Your task to perform on an android device: Search for "razer blade" on bestbuy, select the first entry, add it to the cart, then select checkout. Image 0: 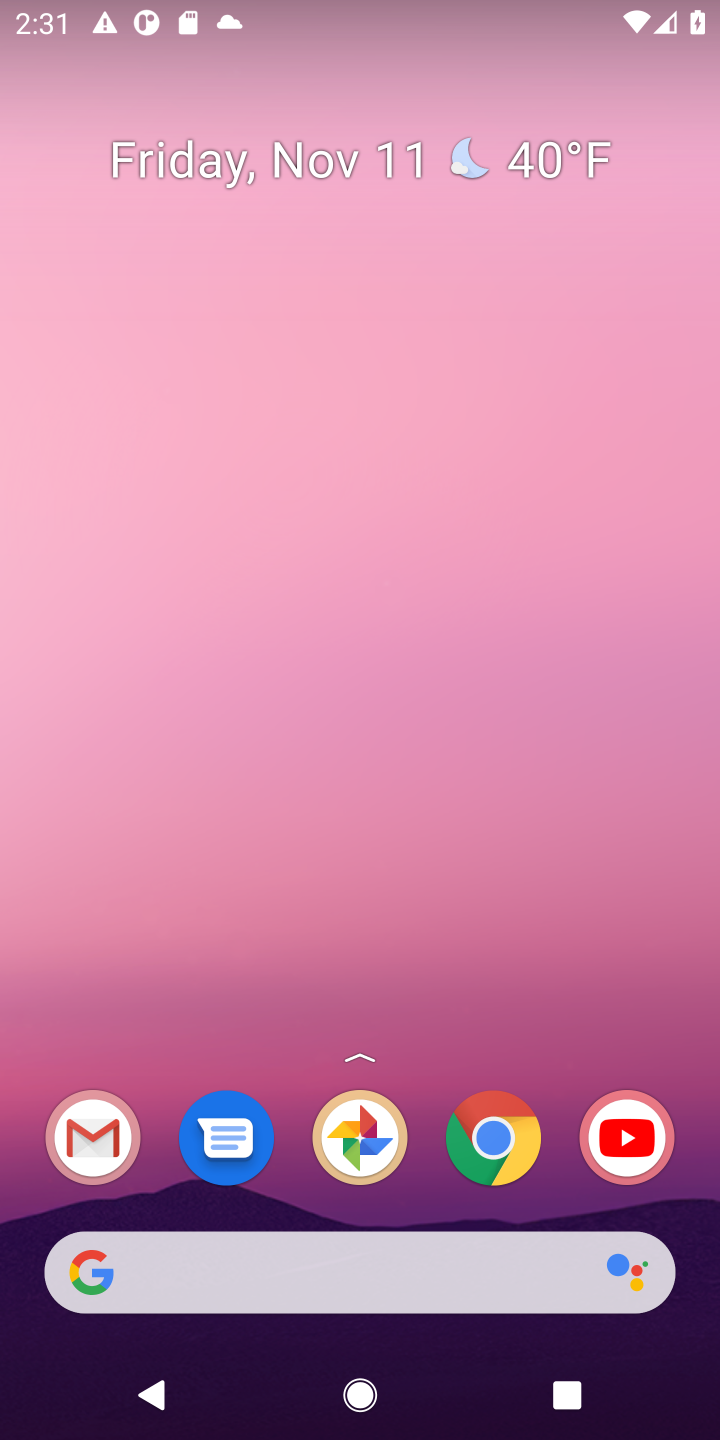
Step 0: click (471, 1137)
Your task to perform on an android device: Search for "razer blade" on bestbuy, select the first entry, add it to the cart, then select checkout. Image 1: 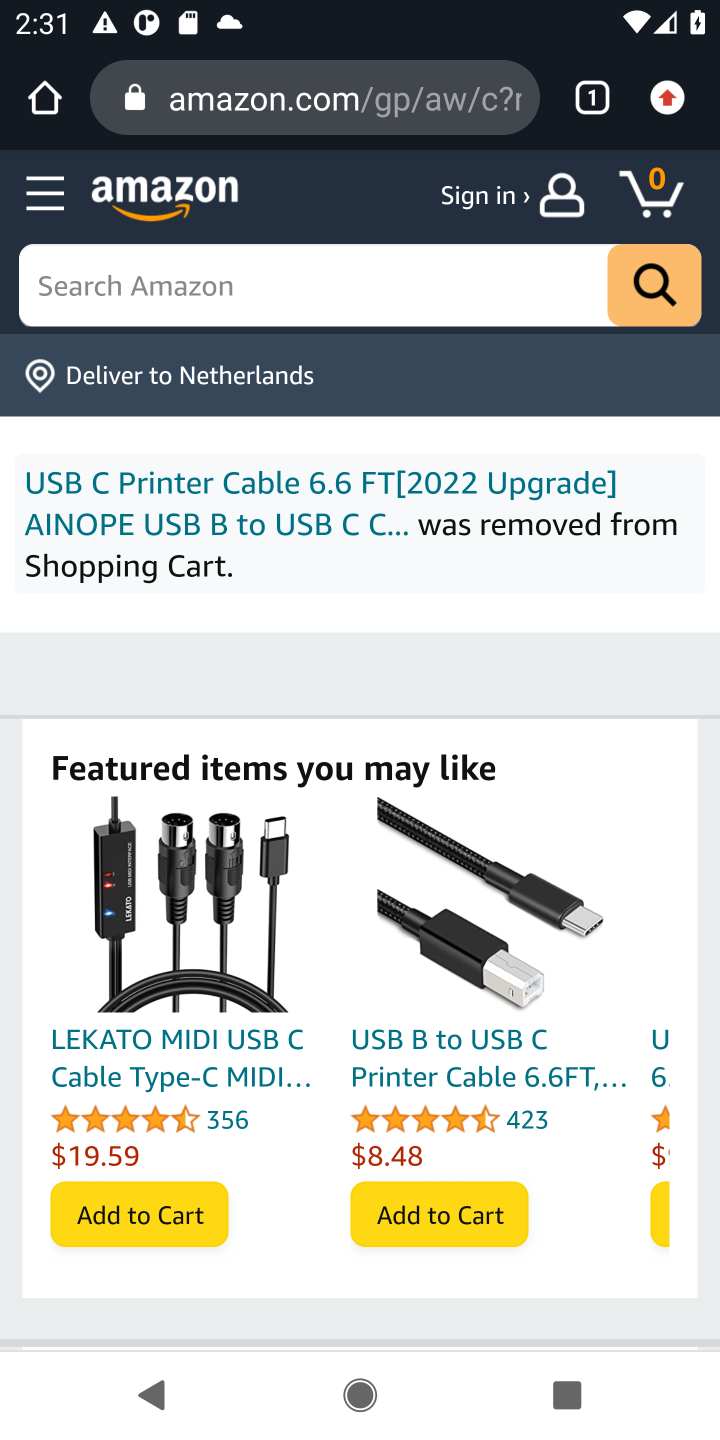
Step 1: click (390, 101)
Your task to perform on an android device: Search for "razer blade" on bestbuy, select the first entry, add it to the cart, then select checkout. Image 2: 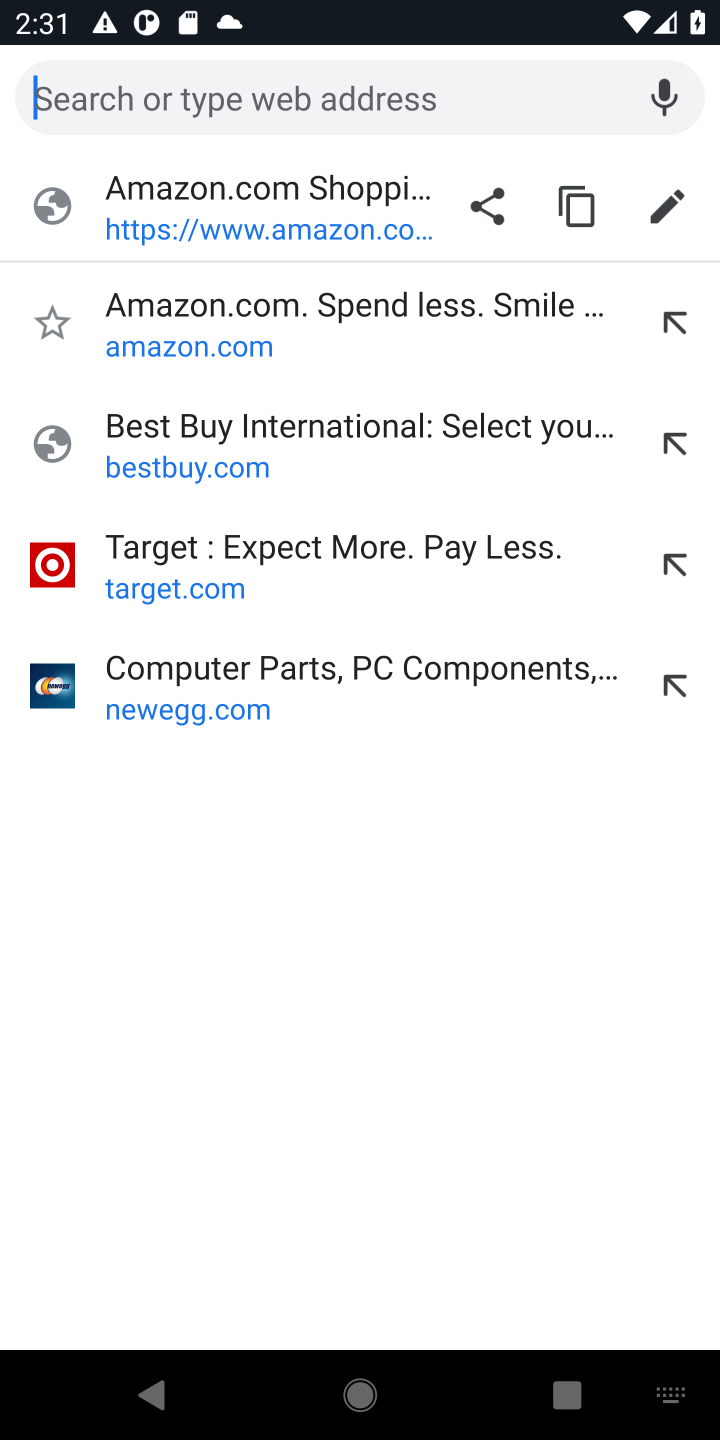
Step 2: click (394, 425)
Your task to perform on an android device: Search for "razer blade" on bestbuy, select the first entry, add it to the cart, then select checkout. Image 3: 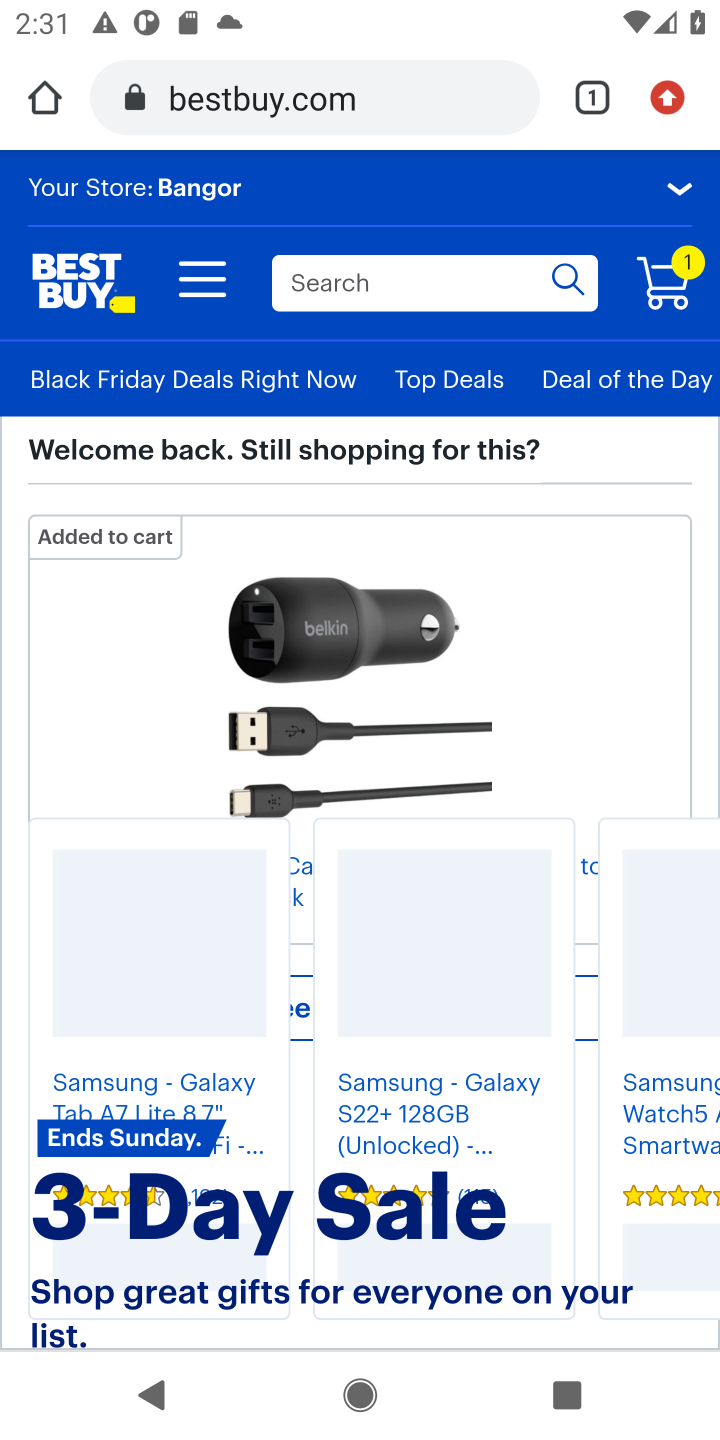
Step 3: click (374, 280)
Your task to perform on an android device: Search for "razer blade" on bestbuy, select the first entry, add it to the cart, then select checkout. Image 4: 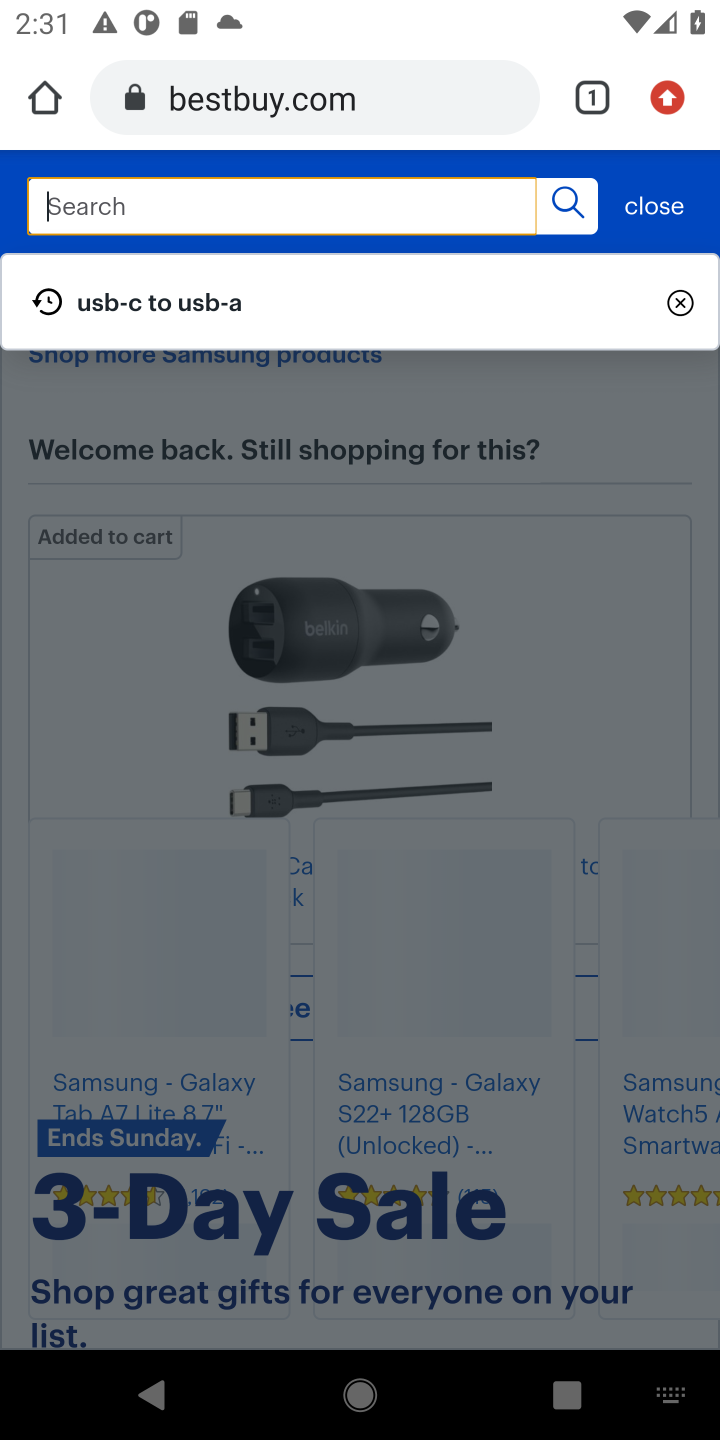
Step 4: type "razer blade"
Your task to perform on an android device: Search for "razer blade" on bestbuy, select the first entry, add it to the cart, then select checkout. Image 5: 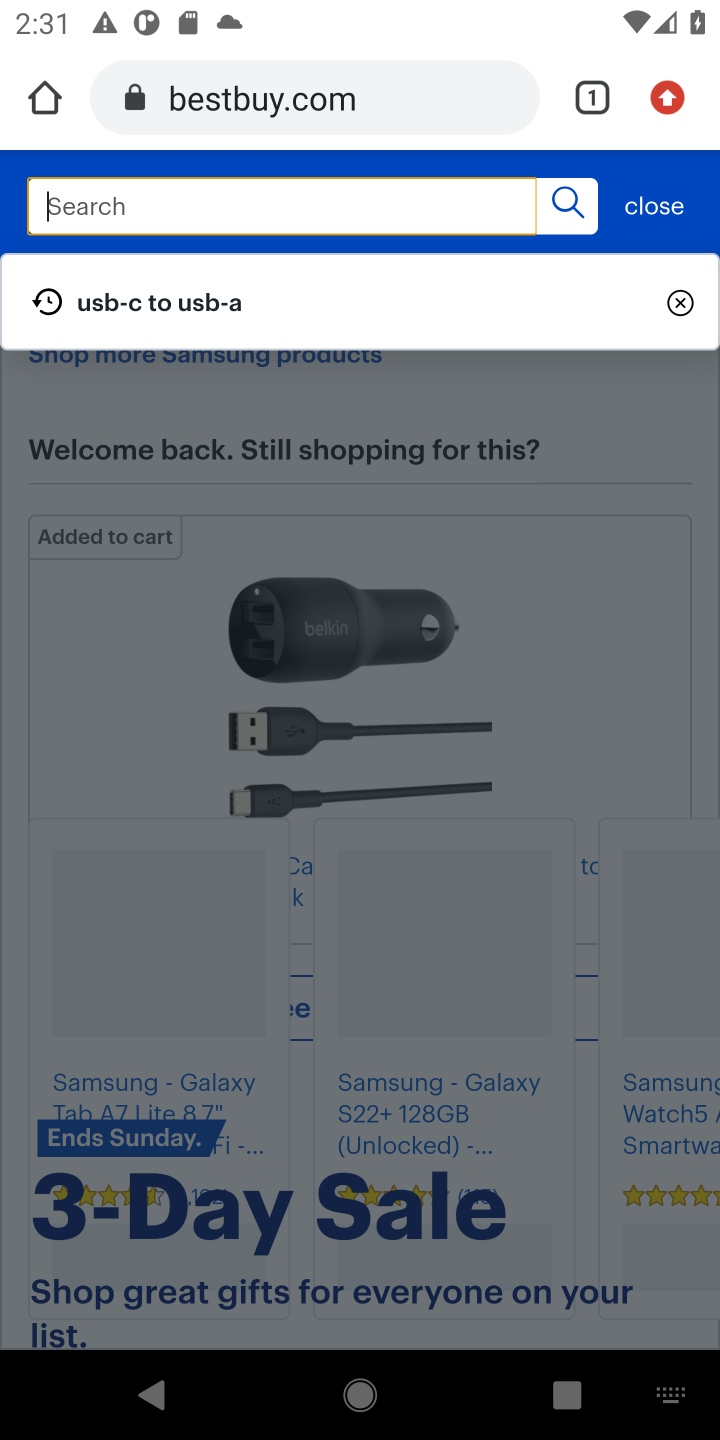
Step 5: press enter
Your task to perform on an android device: Search for "razer blade" on bestbuy, select the first entry, add it to the cart, then select checkout. Image 6: 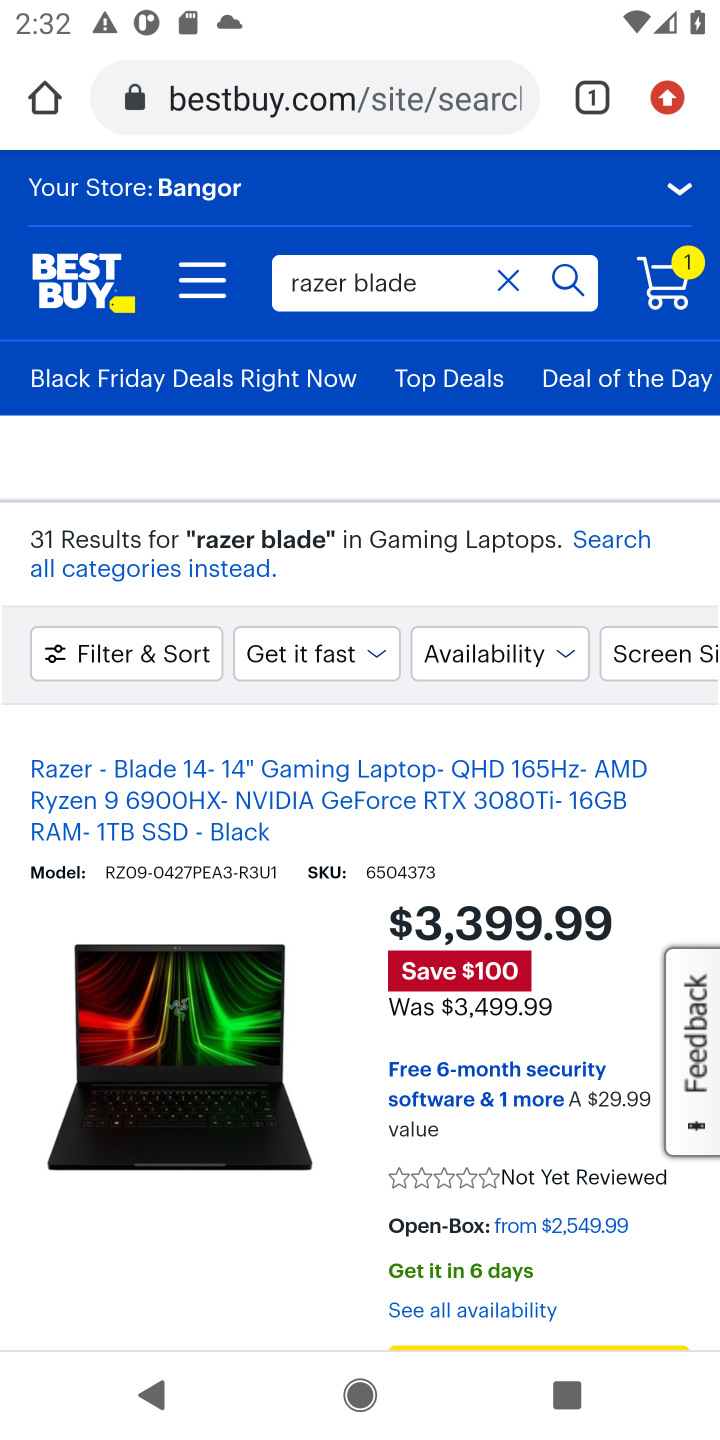
Step 6: click (234, 1100)
Your task to perform on an android device: Search for "razer blade" on bestbuy, select the first entry, add it to the cart, then select checkout. Image 7: 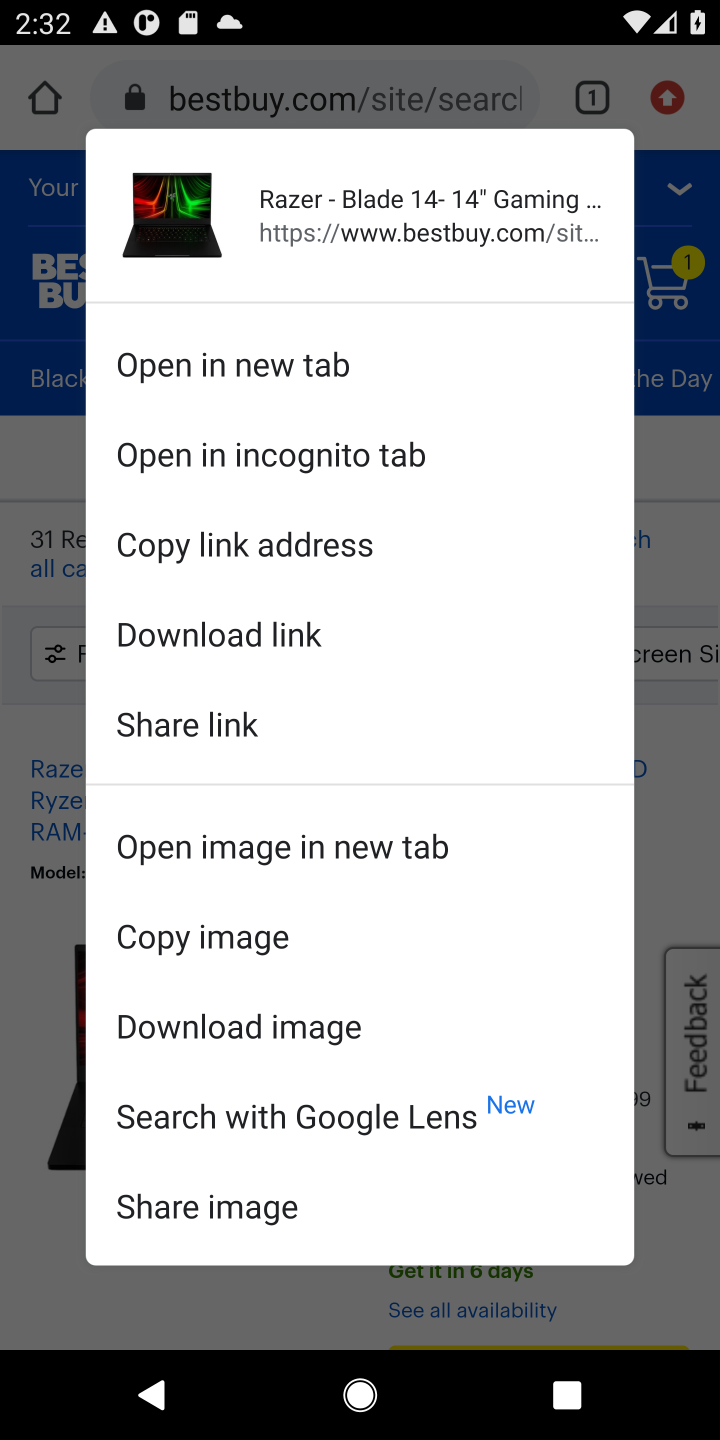
Step 7: click (82, 1088)
Your task to perform on an android device: Search for "razer blade" on bestbuy, select the first entry, add it to the cart, then select checkout. Image 8: 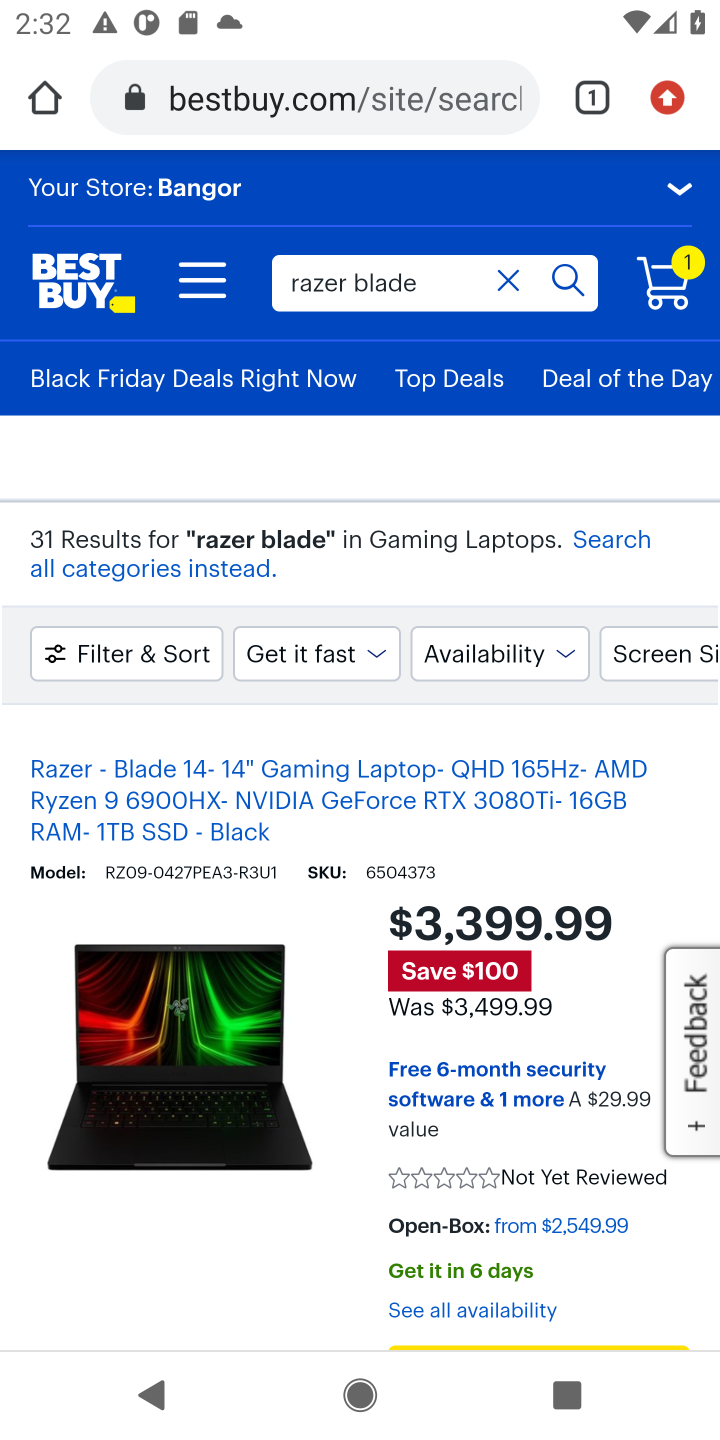
Step 8: click (140, 1026)
Your task to perform on an android device: Search for "razer blade" on bestbuy, select the first entry, add it to the cart, then select checkout. Image 9: 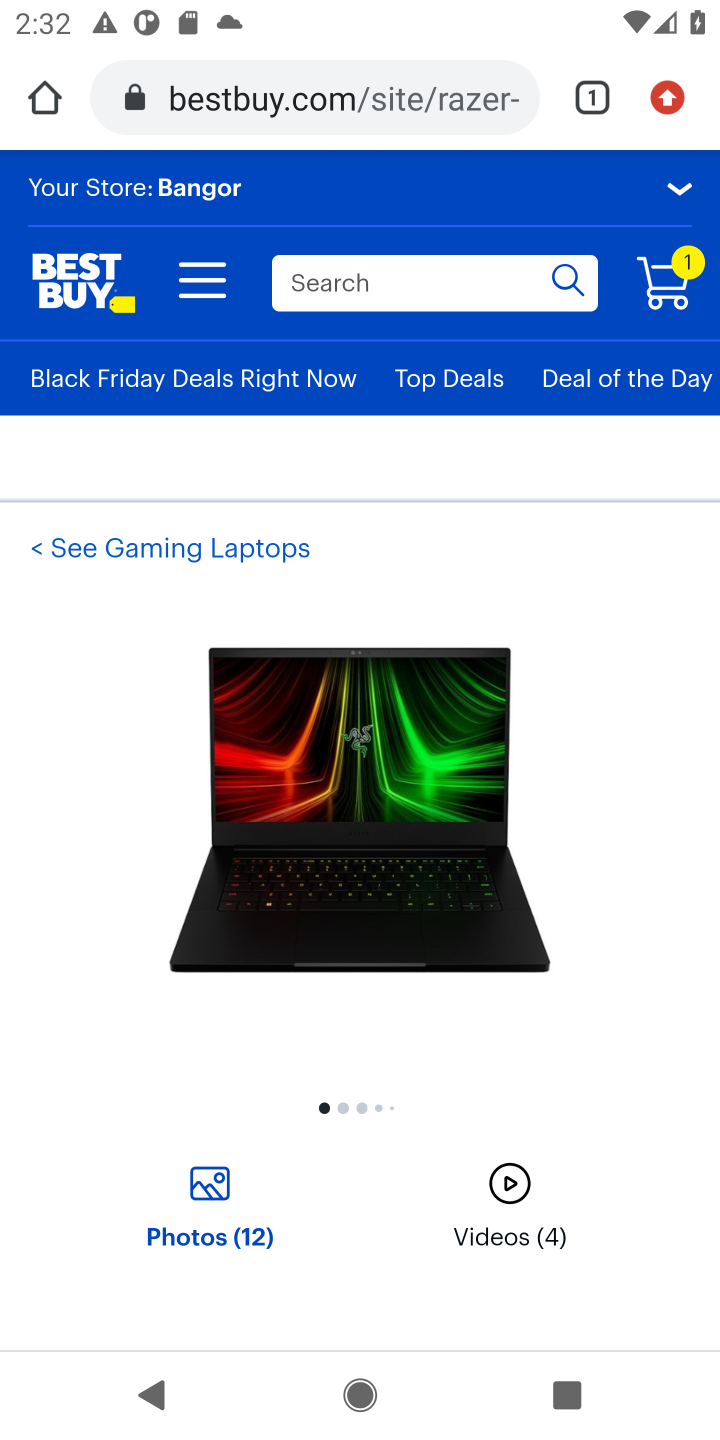
Step 9: drag from (425, 988) to (553, 421)
Your task to perform on an android device: Search for "razer blade" on bestbuy, select the first entry, add it to the cart, then select checkout. Image 10: 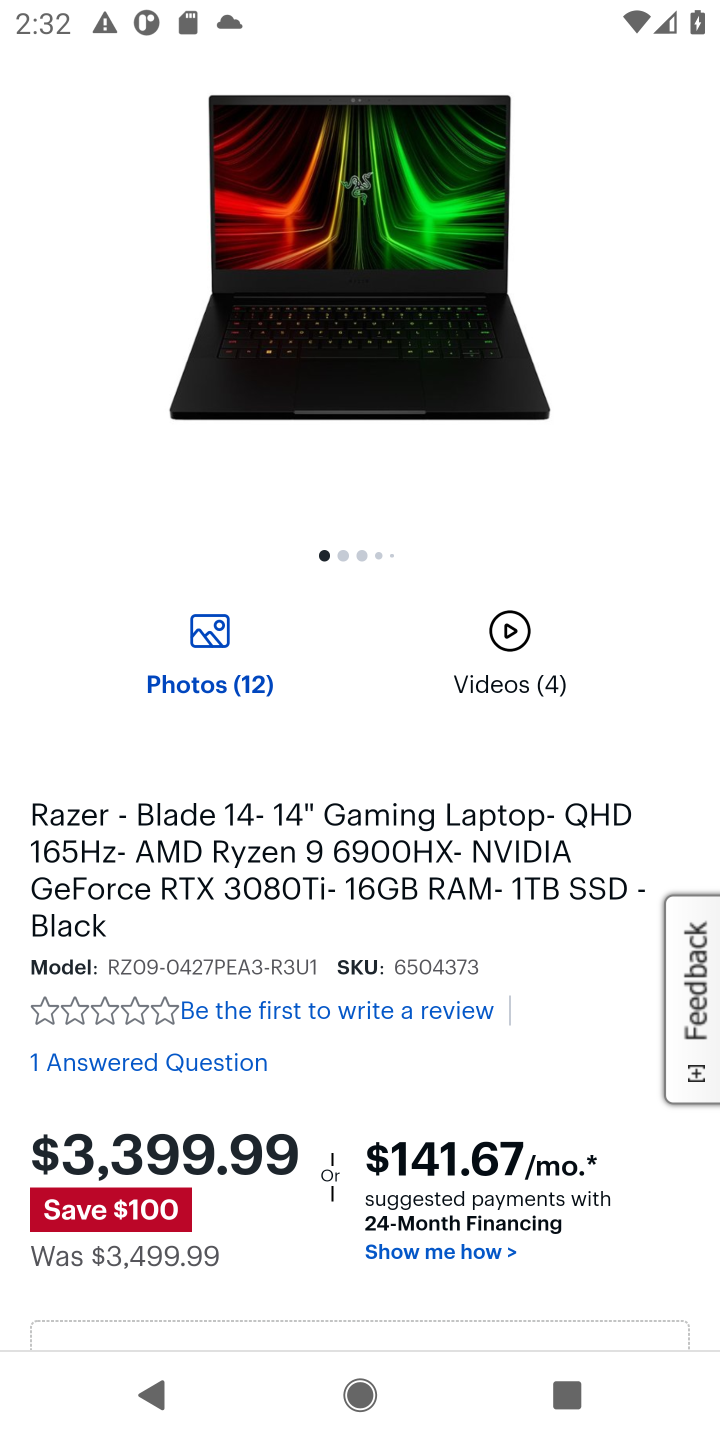
Step 10: drag from (549, 1038) to (558, 390)
Your task to perform on an android device: Search for "razer blade" on bestbuy, select the first entry, add it to the cart, then select checkout. Image 11: 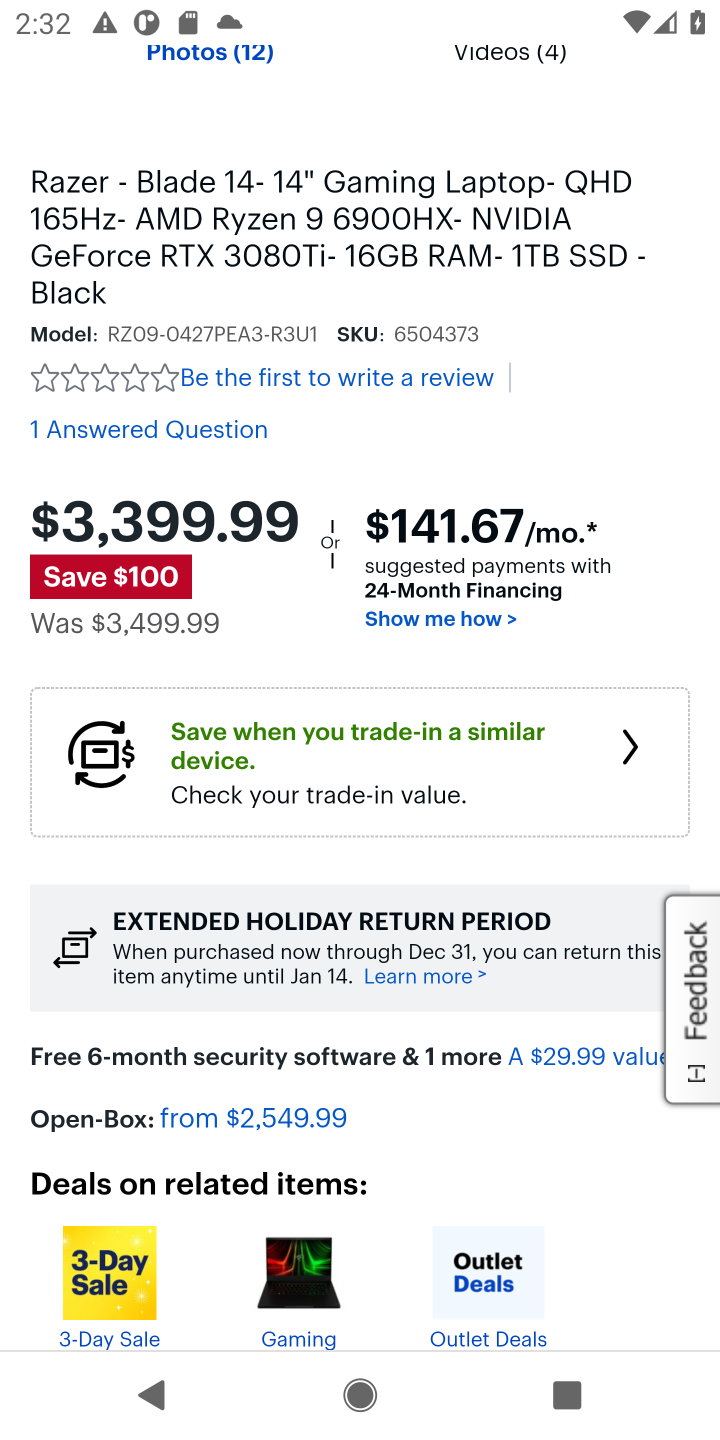
Step 11: drag from (490, 892) to (356, 147)
Your task to perform on an android device: Search for "razer blade" on bestbuy, select the first entry, add it to the cart, then select checkout. Image 12: 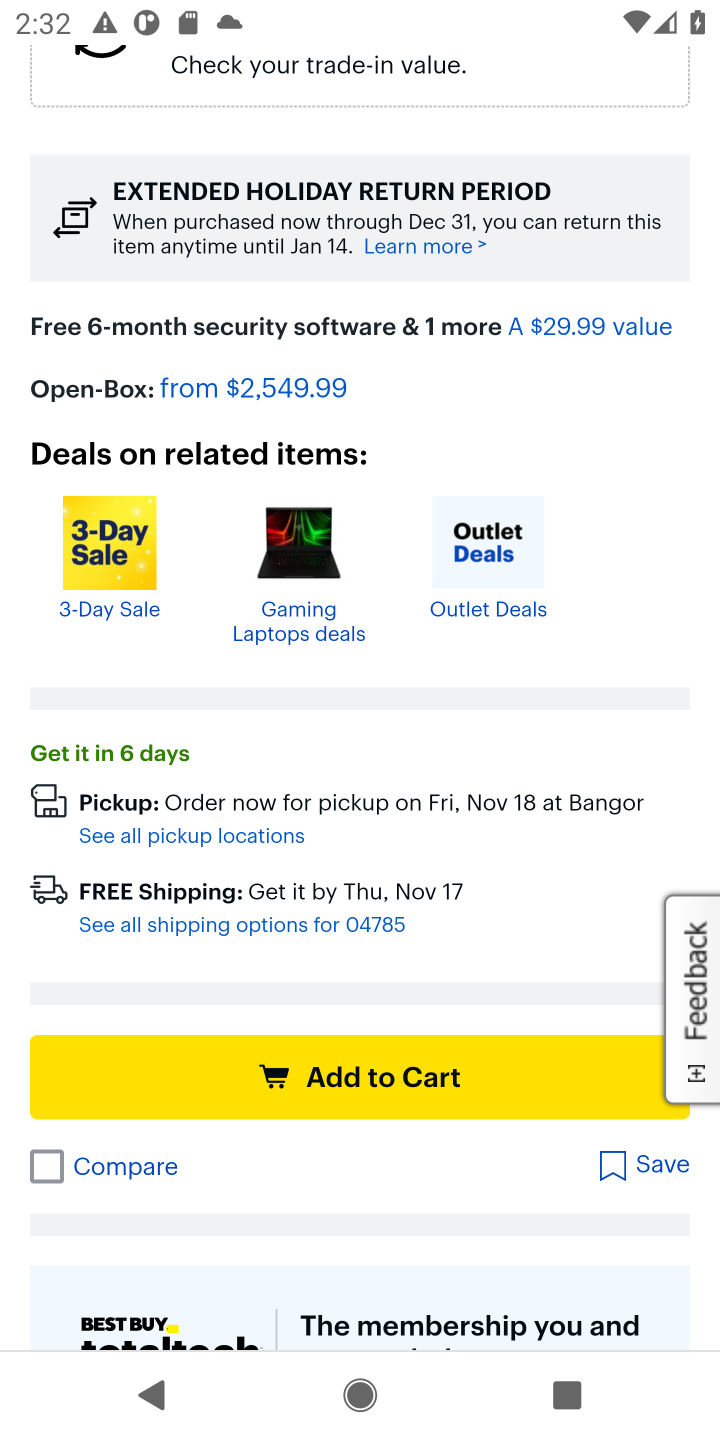
Step 12: click (388, 1065)
Your task to perform on an android device: Search for "razer blade" on bestbuy, select the first entry, add it to the cart, then select checkout. Image 13: 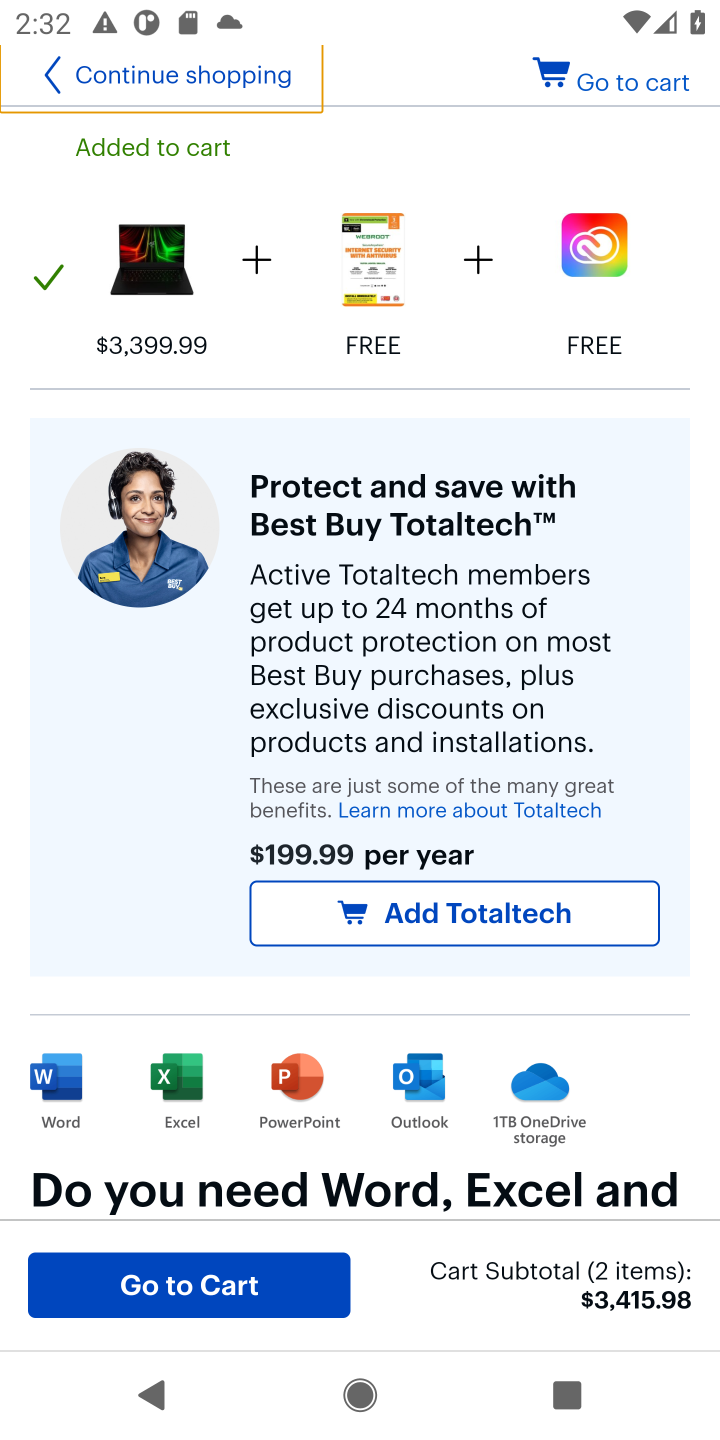
Step 13: click (202, 1291)
Your task to perform on an android device: Search for "razer blade" on bestbuy, select the first entry, add it to the cart, then select checkout. Image 14: 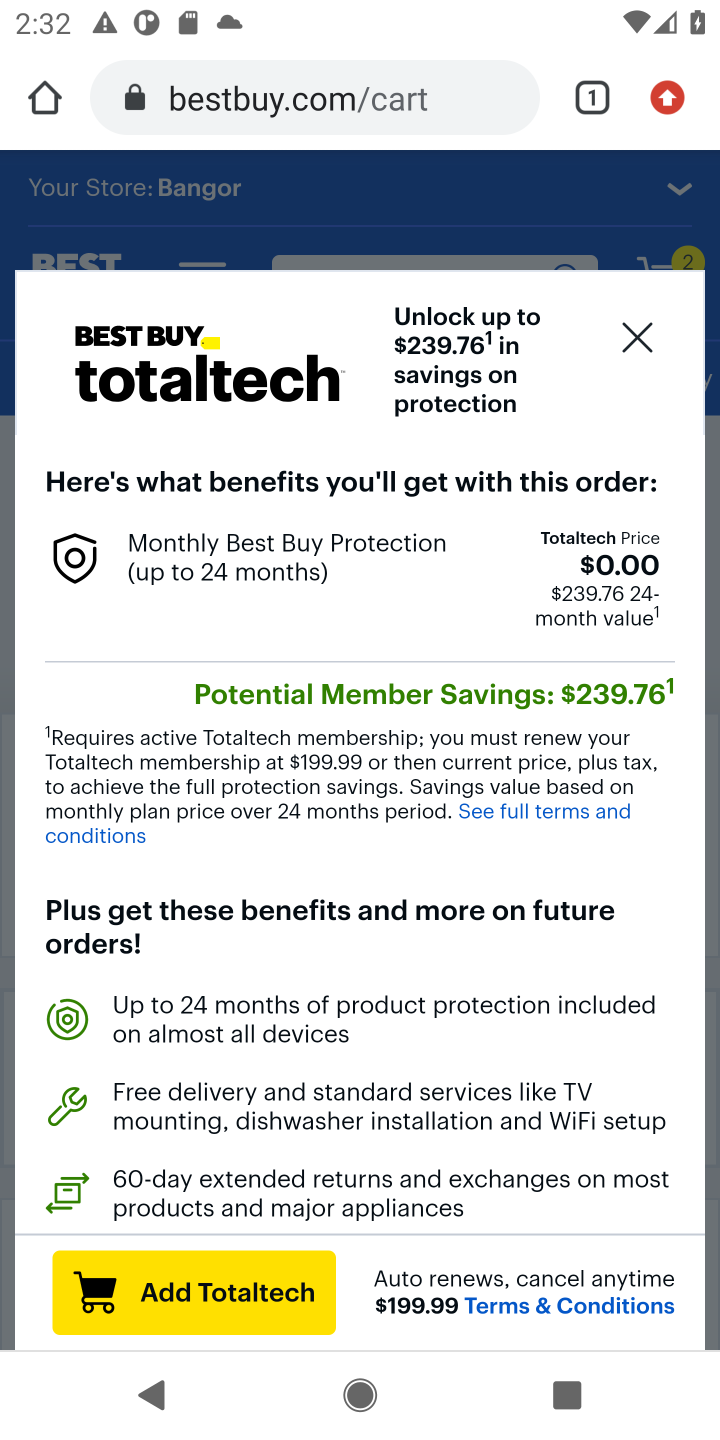
Step 14: click (649, 343)
Your task to perform on an android device: Search for "razer blade" on bestbuy, select the first entry, add it to the cart, then select checkout. Image 15: 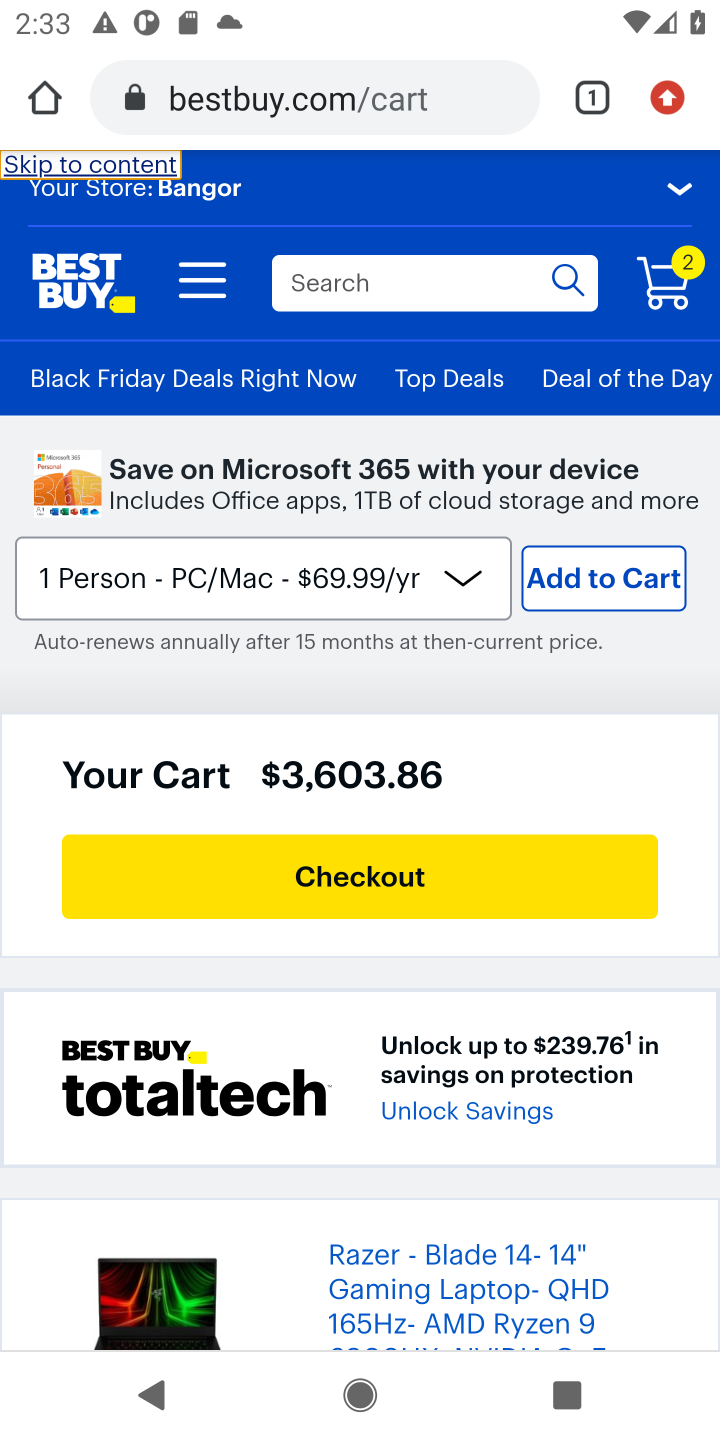
Step 15: click (423, 858)
Your task to perform on an android device: Search for "razer blade" on bestbuy, select the first entry, add it to the cart, then select checkout. Image 16: 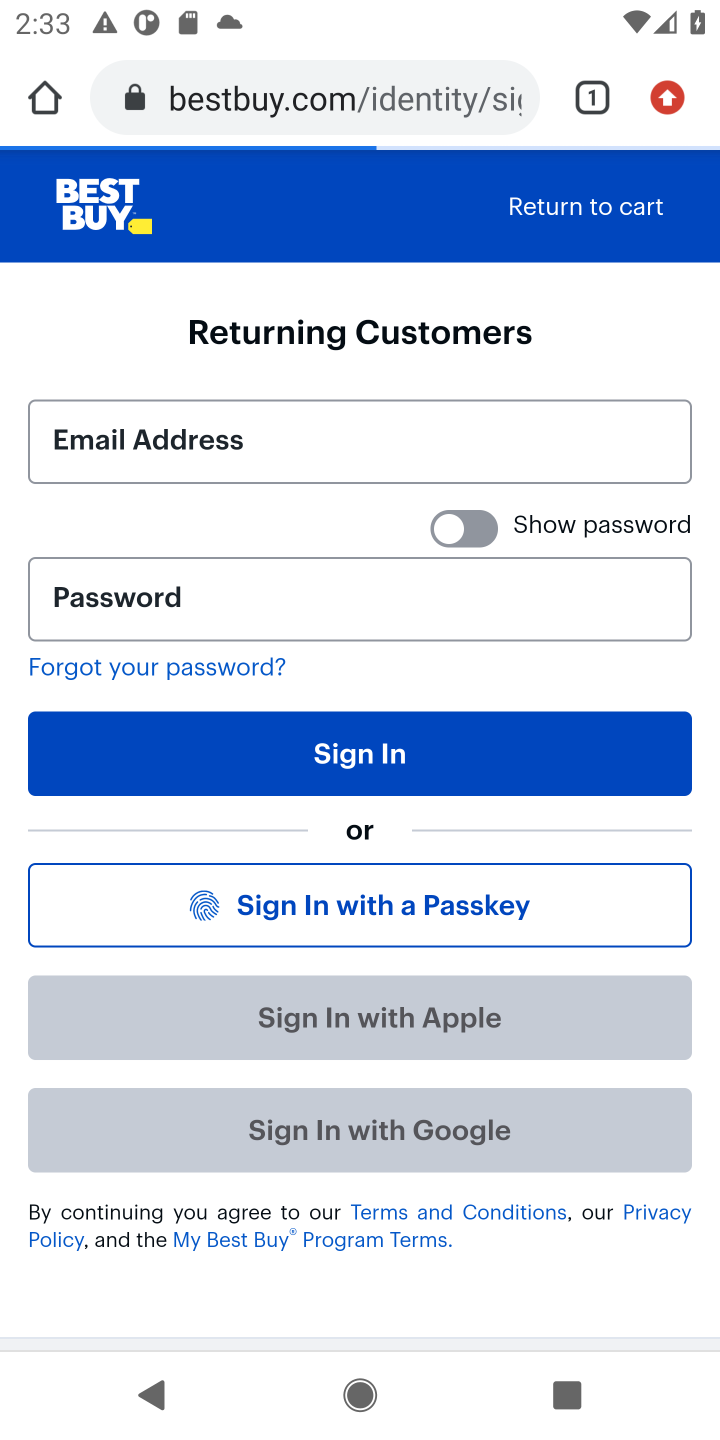
Step 16: task complete